Your task to perform on an android device: toggle airplane mode Image 0: 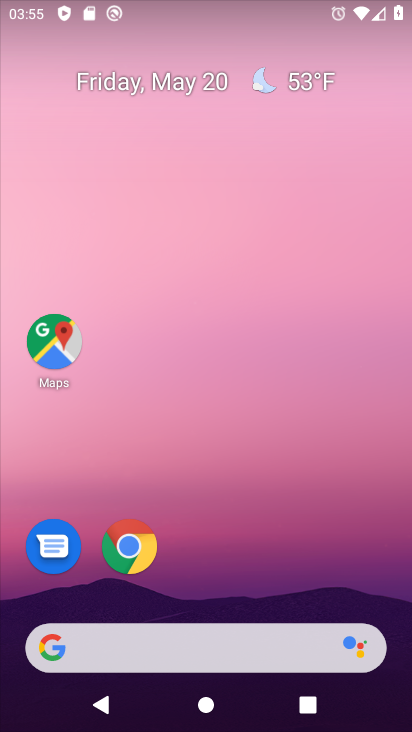
Step 0: drag from (270, 567) to (279, 101)
Your task to perform on an android device: toggle airplane mode Image 1: 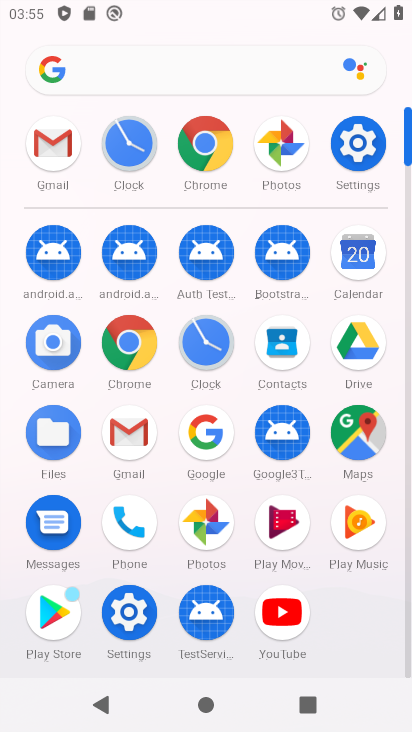
Step 1: click (355, 137)
Your task to perform on an android device: toggle airplane mode Image 2: 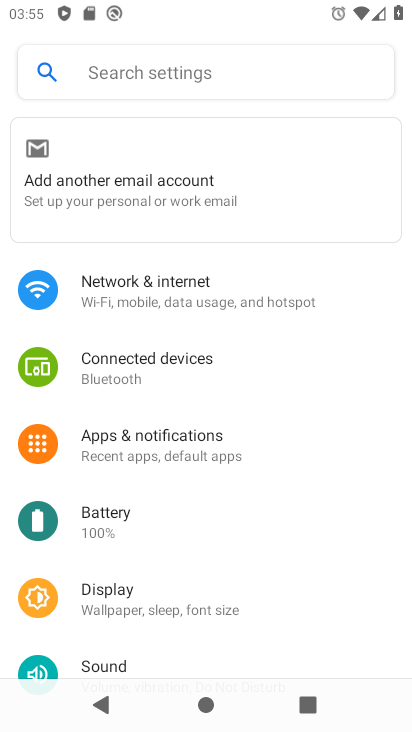
Step 2: click (160, 301)
Your task to perform on an android device: toggle airplane mode Image 3: 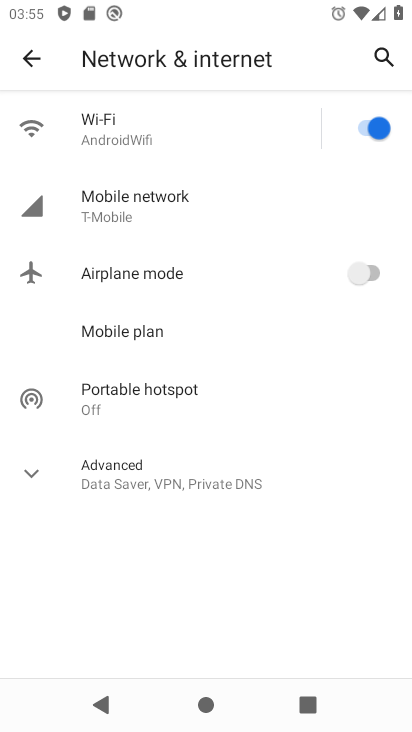
Step 3: click (347, 274)
Your task to perform on an android device: toggle airplane mode Image 4: 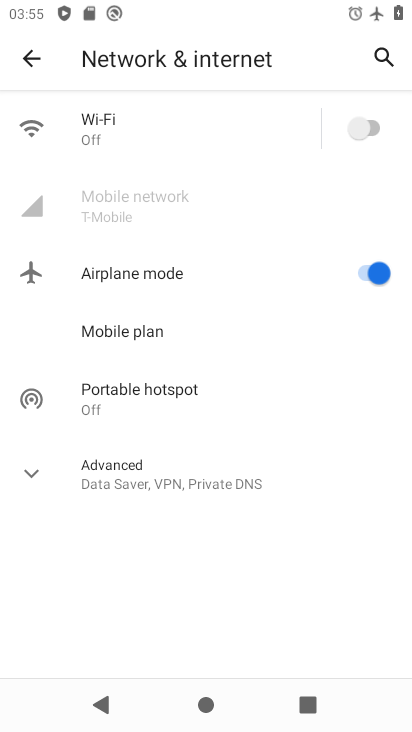
Step 4: task complete